Your task to perform on an android device: Open privacy settings Image 0: 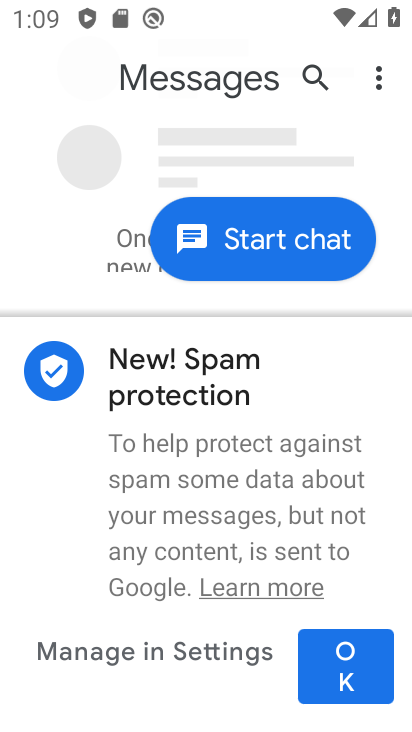
Step 0: press home button
Your task to perform on an android device: Open privacy settings Image 1: 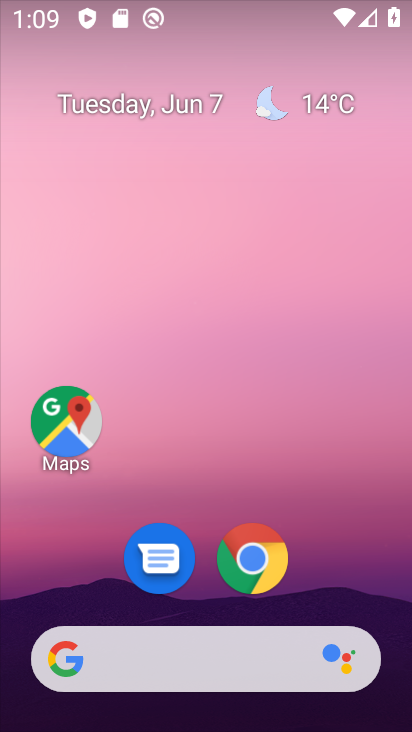
Step 1: drag from (67, 487) to (270, 111)
Your task to perform on an android device: Open privacy settings Image 2: 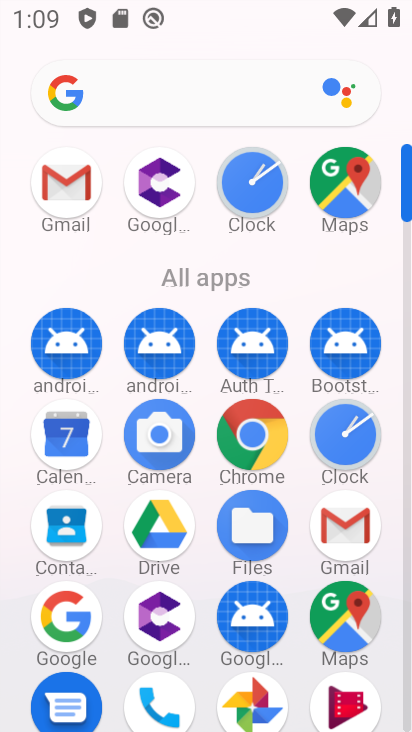
Step 2: drag from (37, 475) to (153, 263)
Your task to perform on an android device: Open privacy settings Image 3: 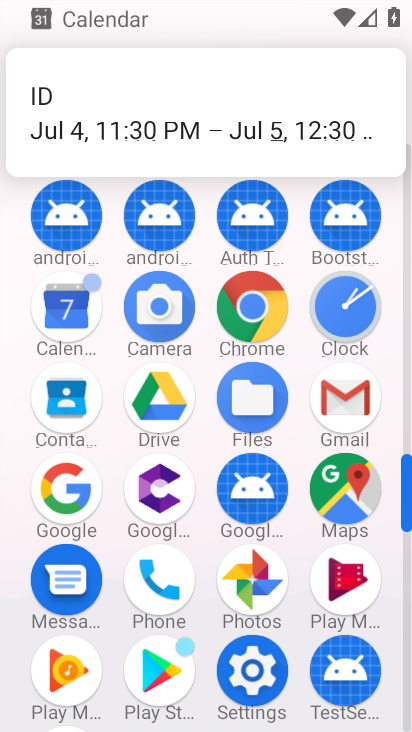
Step 3: click (255, 657)
Your task to perform on an android device: Open privacy settings Image 4: 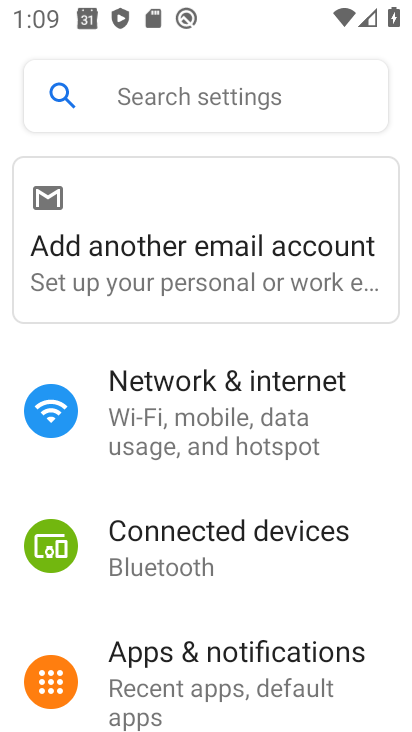
Step 4: drag from (48, 584) to (261, 202)
Your task to perform on an android device: Open privacy settings Image 5: 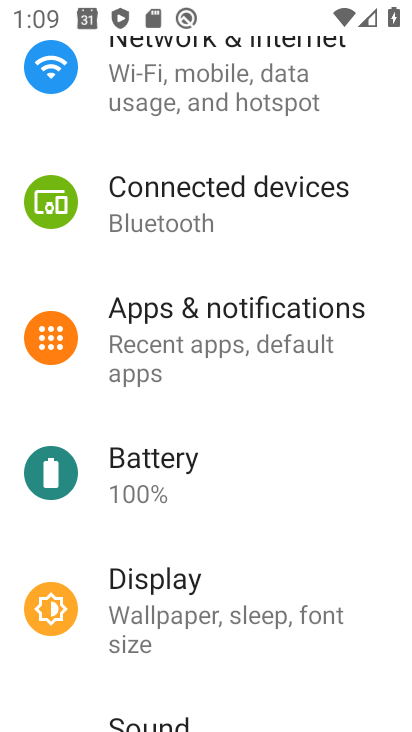
Step 5: drag from (27, 585) to (205, 296)
Your task to perform on an android device: Open privacy settings Image 6: 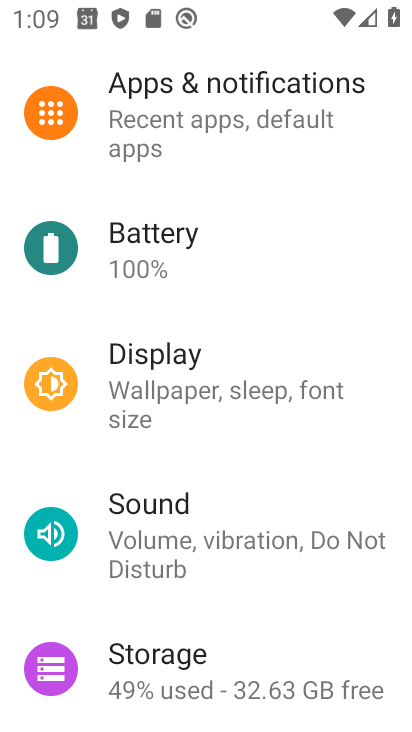
Step 6: drag from (26, 418) to (162, 163)
Your task to perform on an android device: Open privacy settings Image 7: 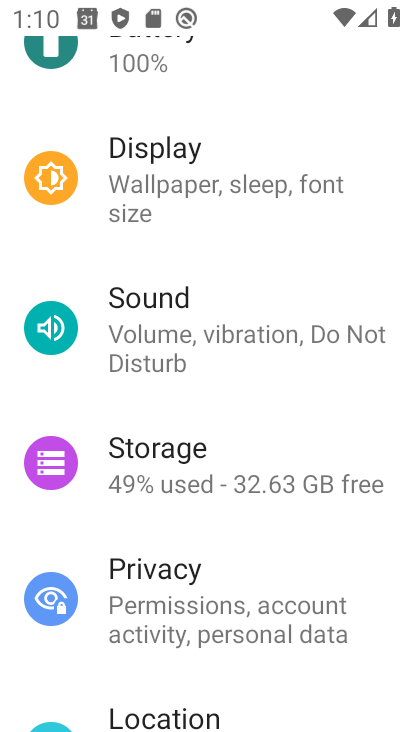
Step 7: drag from (24, 536) to (236, 203)
Your task to perform on an android device: Open privacy settings Image 8: 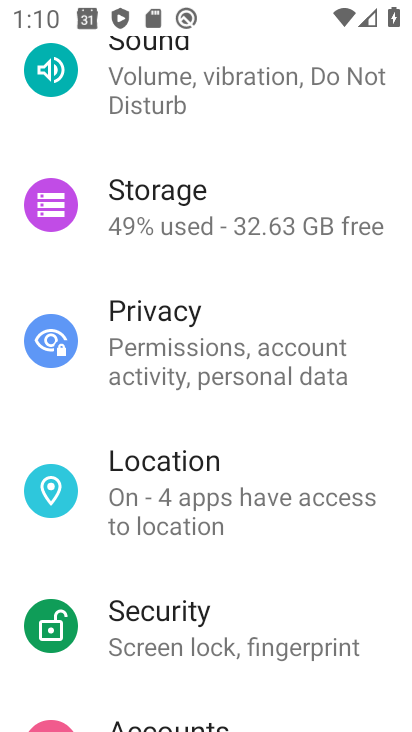
Step 8: drag from (259, 180) to (157, 596)
Your task to perform on an android device: Open privacy settings Image 9: 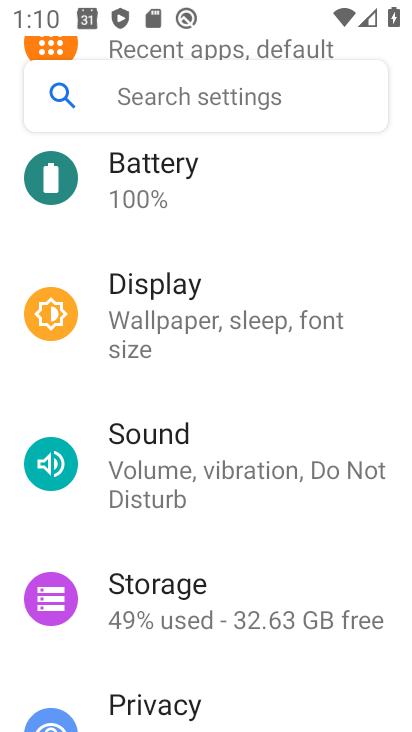
Step 9: click (158, 703)
Your task to perform on an android device: Open privacy settings Image 10: 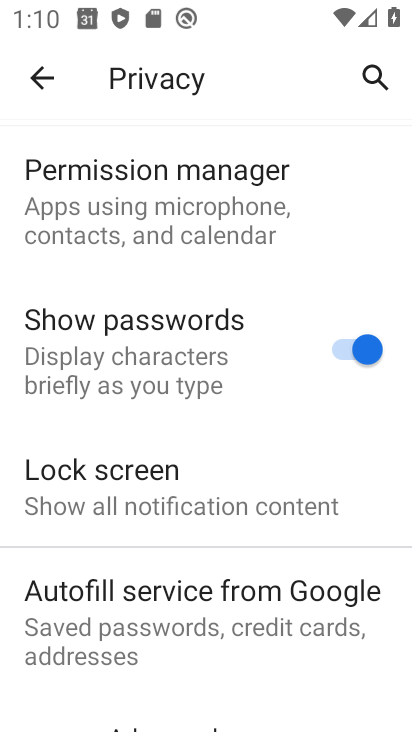
Step 10: task complete